Your task to perform on an android device: open app "Chime – Mobile Banking" (install if not already installed), go to login, and select forgot password Image 0: 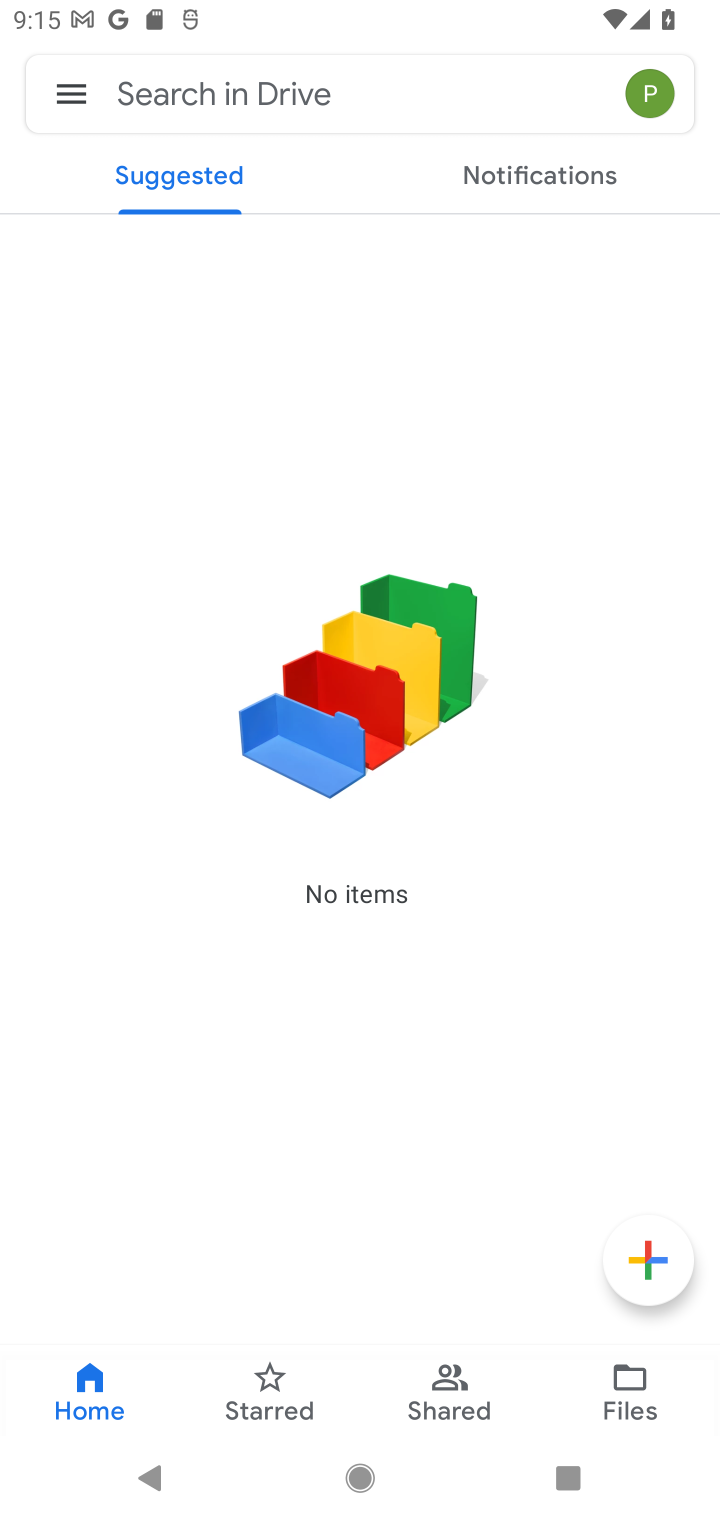
Step 0: press home button
Your task to perform on an android device: open app "Chime – Mobile Banking" (install if not already installed), go to login, and select forgot password Image 1: 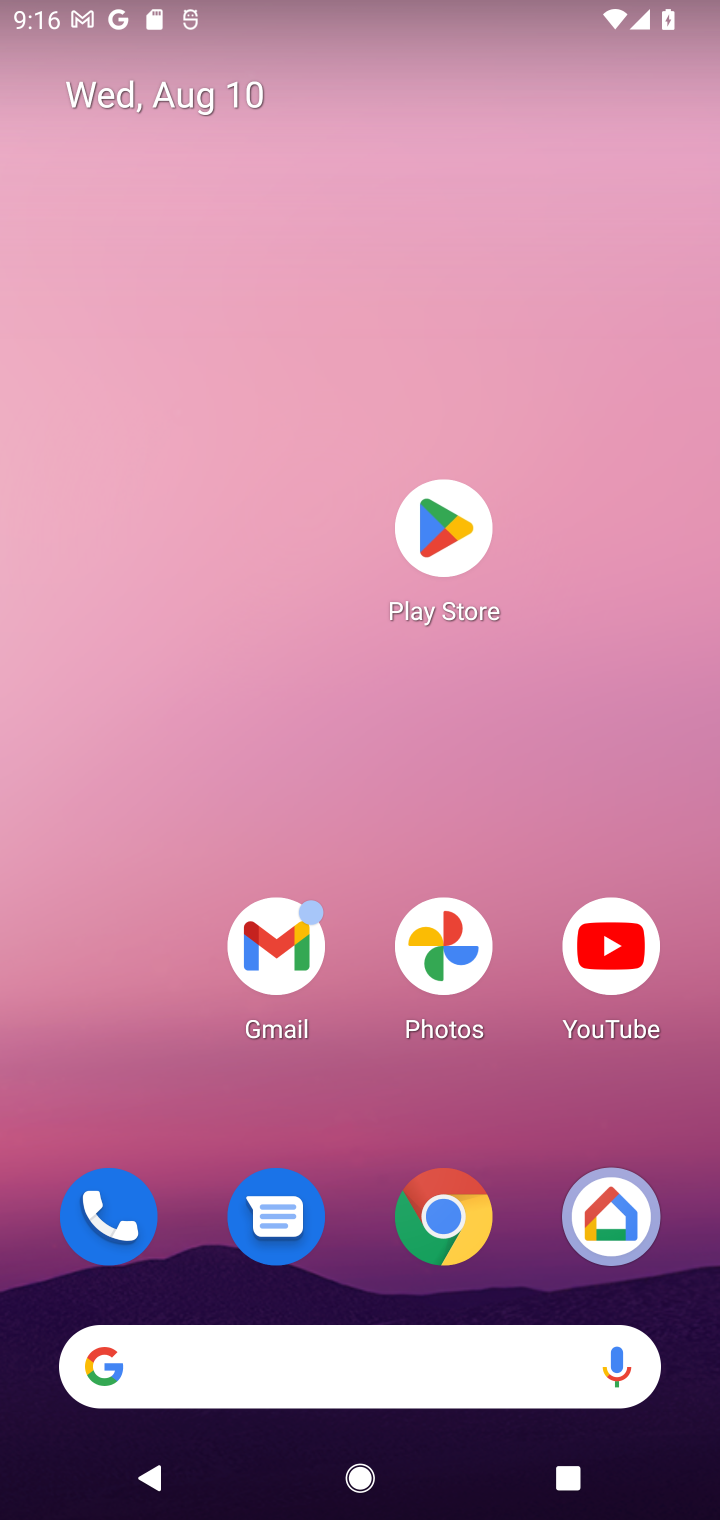
Step 1: click (447, 534)
Your task to perform on an android device: open app "Chime – Mobile Banking" (install if not already installed), go to login, and select forgot password Image 2: 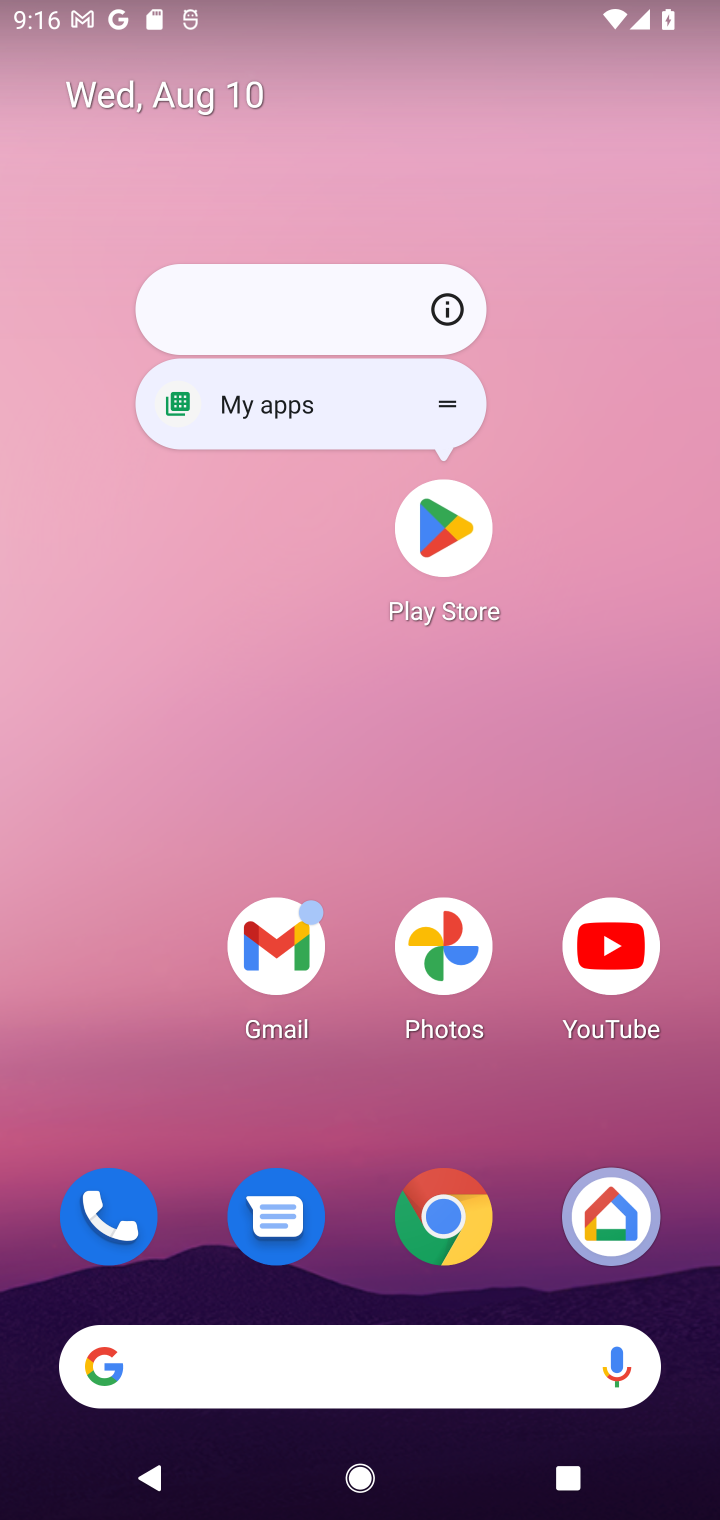
Step 2: click (447, 536)
Your task to perform on an android device: open app "Chime – Mobile Banking" (install if not already installed), go to login, and select forgot password Image 3: 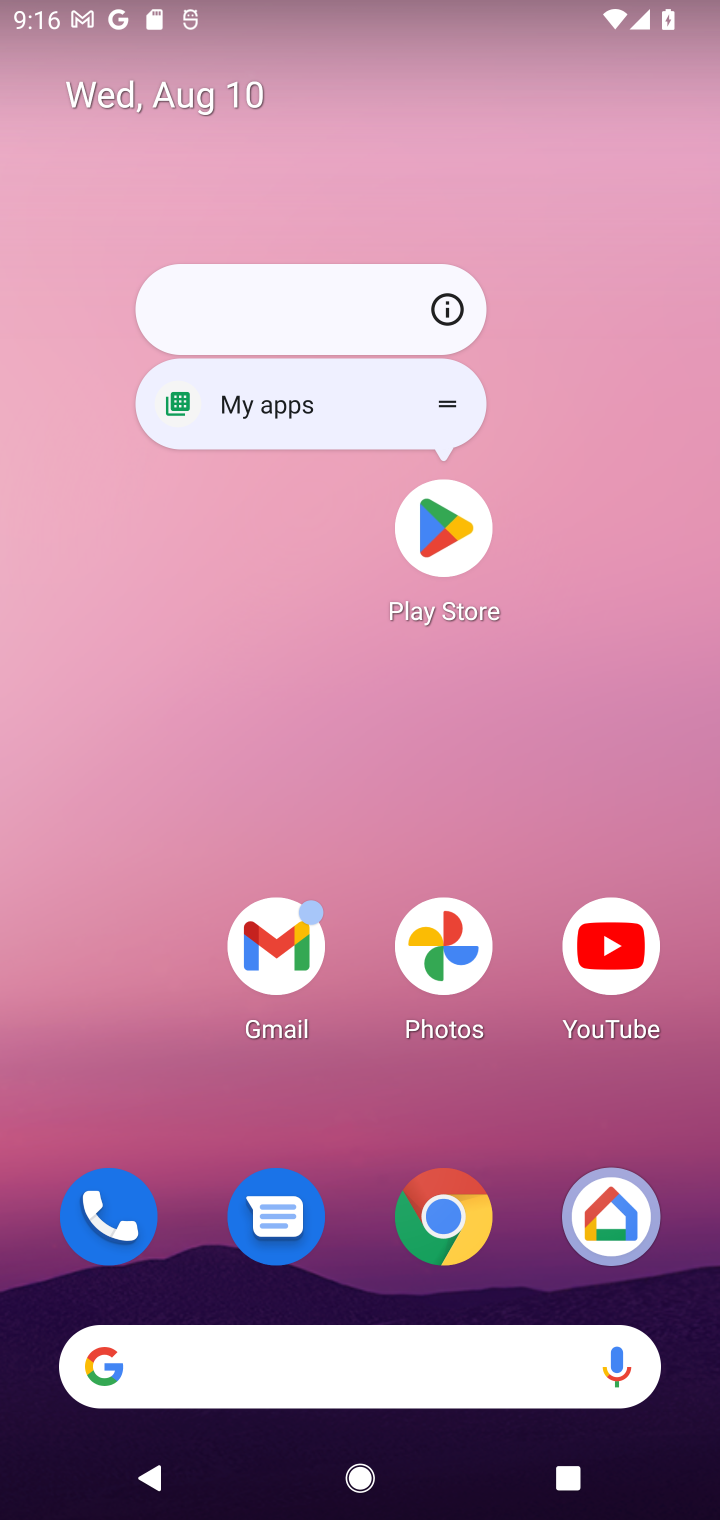
Step 3: click (447, 539)
Your task to perform on an android device: open app "Chime – Mobile Banking" (install if not already installed), go to login, and select forgot password Image 4: 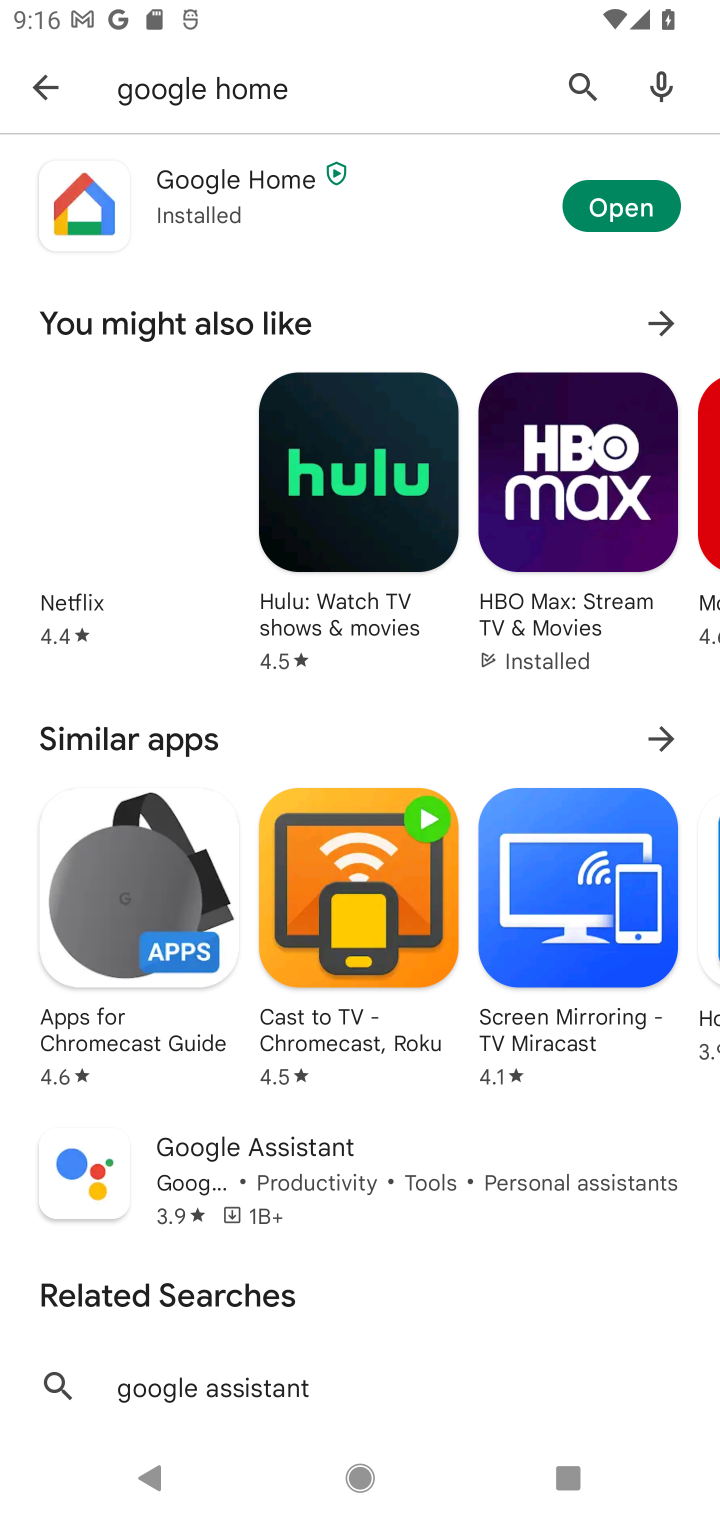
Step 4: click (575, 91)
Your task to perform on an android device: open app "Chime – Mobile Banking" (install if not already installed), go to login, and select forgot password Image 5: 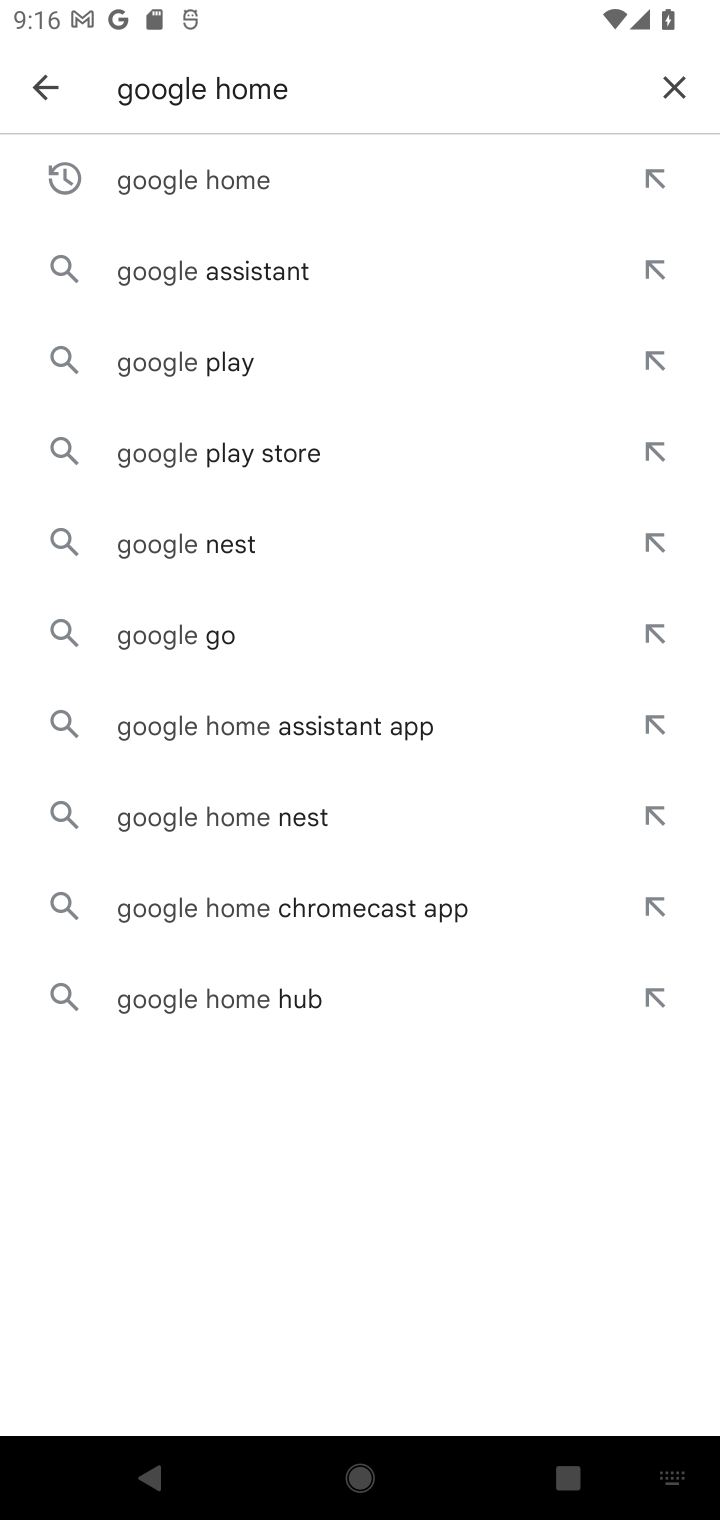
Step 5: click (672, 77)
Your task to perform on an android device: open app "Chime – Mobile Banking" (install if not already installed), go to login, and select forgot password Image 6: 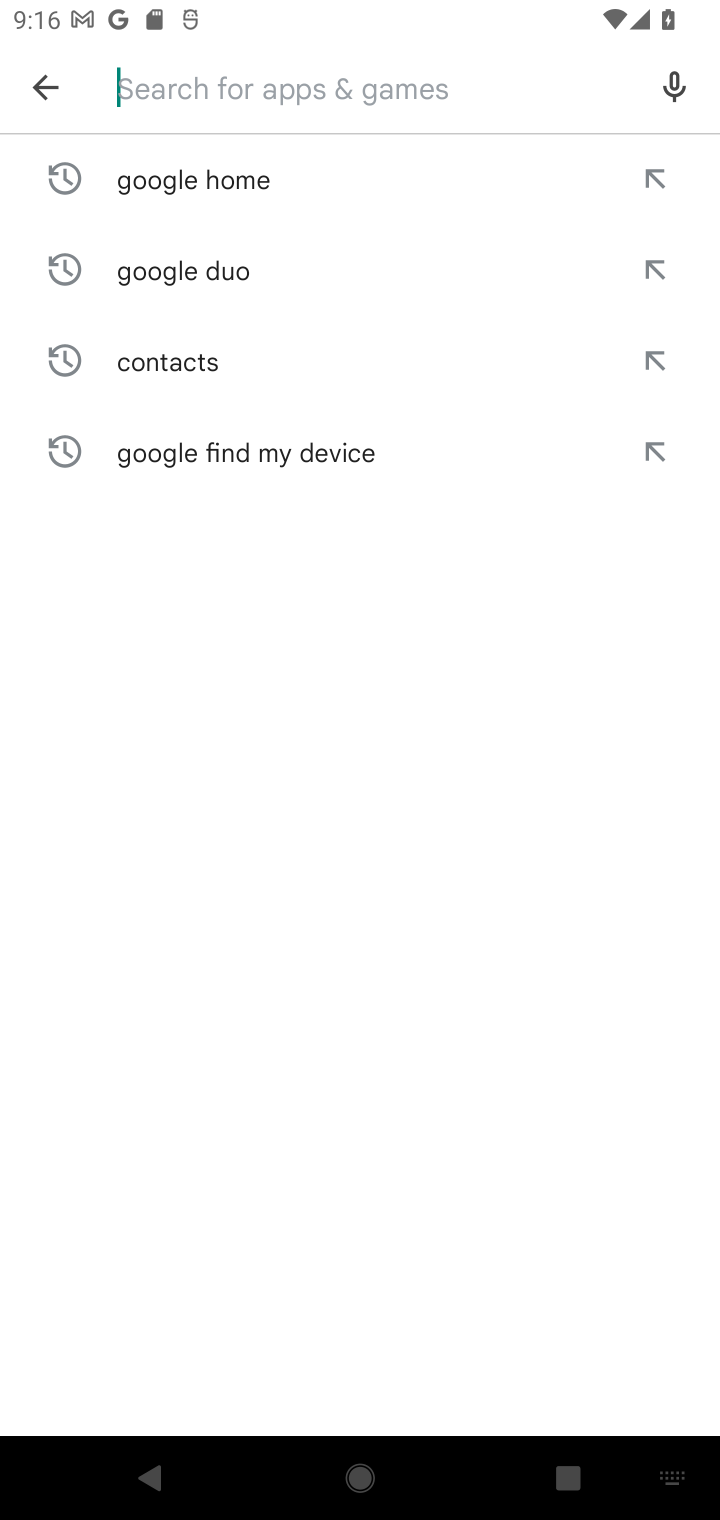
Step 6: type "Chime – Mobile Banking"
Your task to perform on an android device: open app "Chime – Mobile Banking" (install if not already installed), go to login, and select forgot password Image 7: 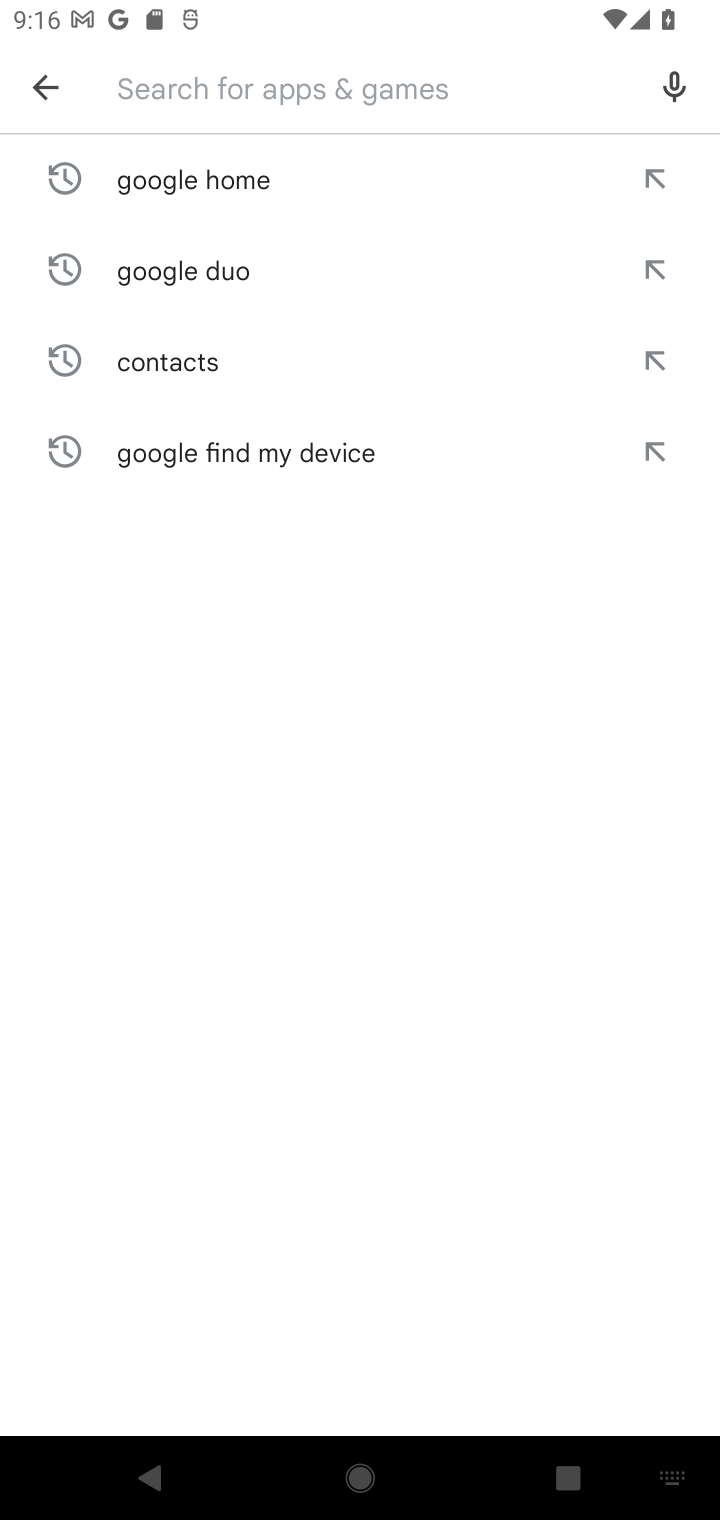
Step 7: type "Chime Mobile Banking"
Your task to perform on an android device: open app "Chime – Mobile Banking" (install if not already installed), go to login, and select forgot password Image 8: 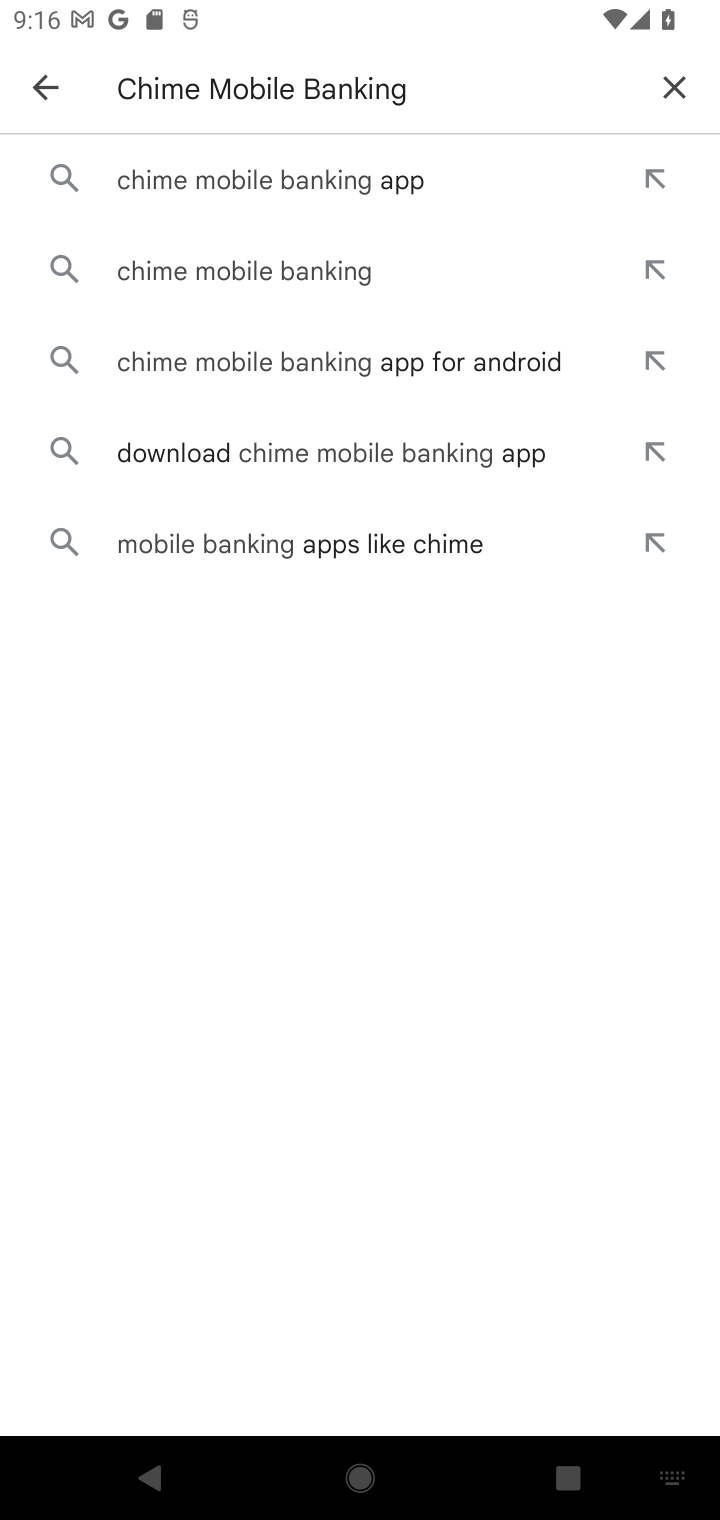
Step 8: click (360, 177)
Your task to perform on an android device: open app "Chime – Mobile Banking" (install if not already installed), go to login, and select forgot password Image 9: 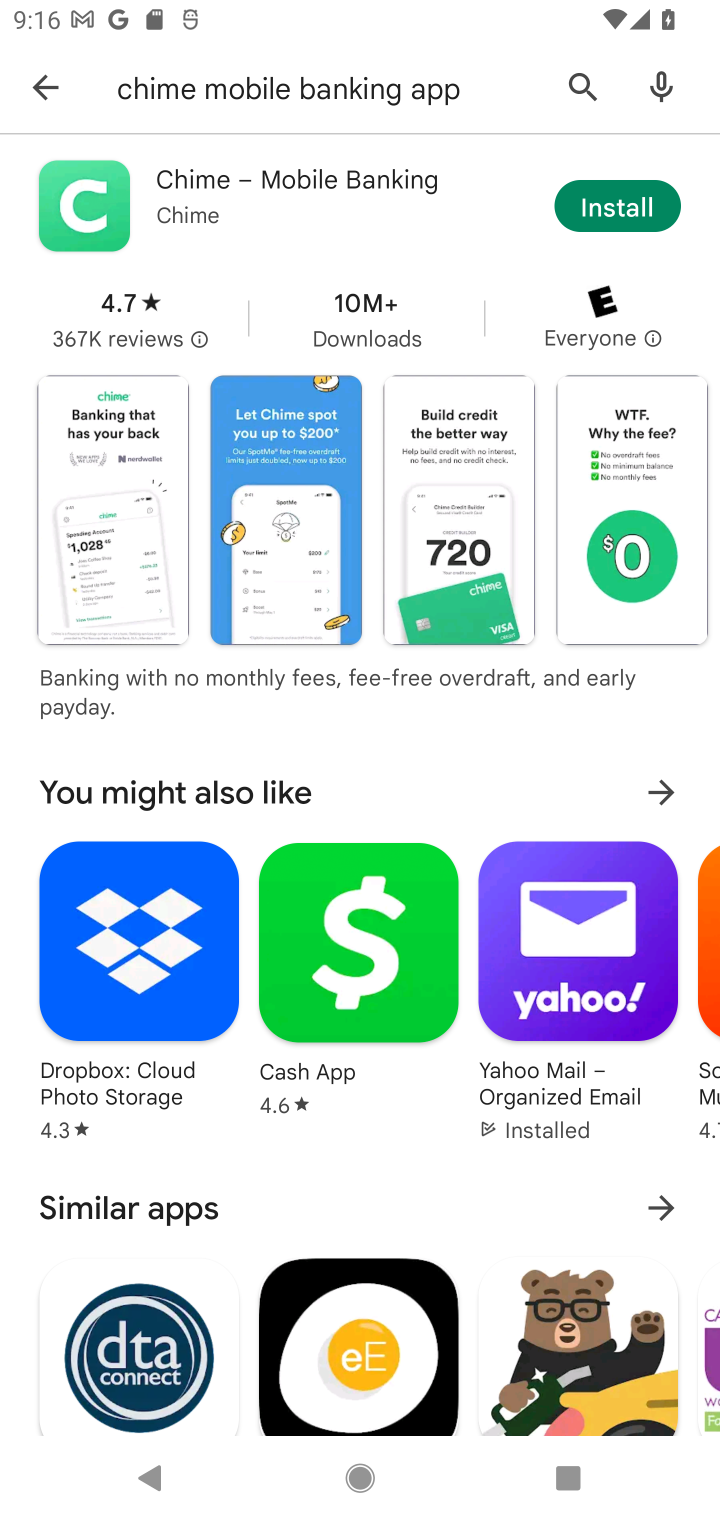
Step 9: click (603, 218)
Your task to perform on an android device: open app "Chime – Mobile Banking" (install if not already installed), go to login, and select forgot password Image 10: 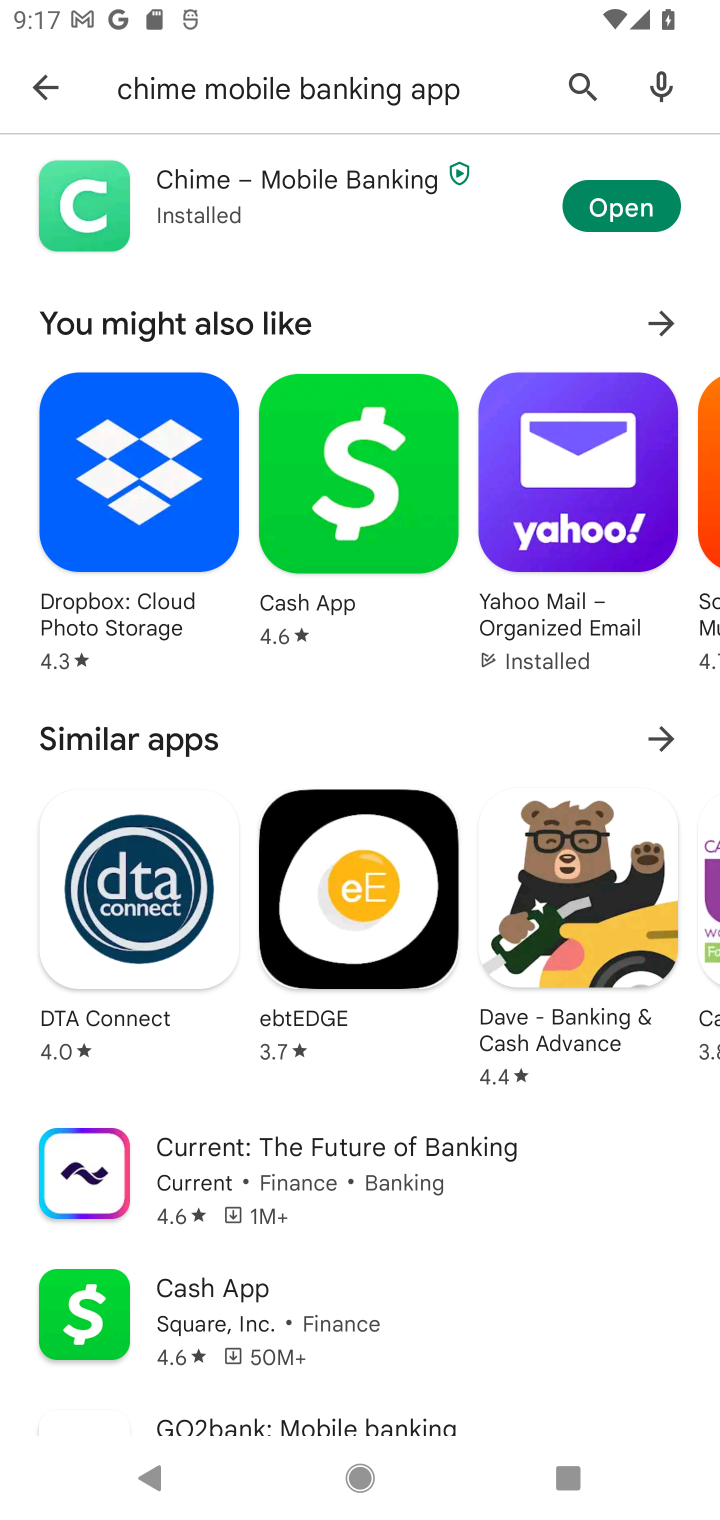
Step 10: click (631, 198)
Your task to perform on an android device: open app "Chime – Mobile Banking" (install if not already installed), go to login, and select forgot password Image 11: 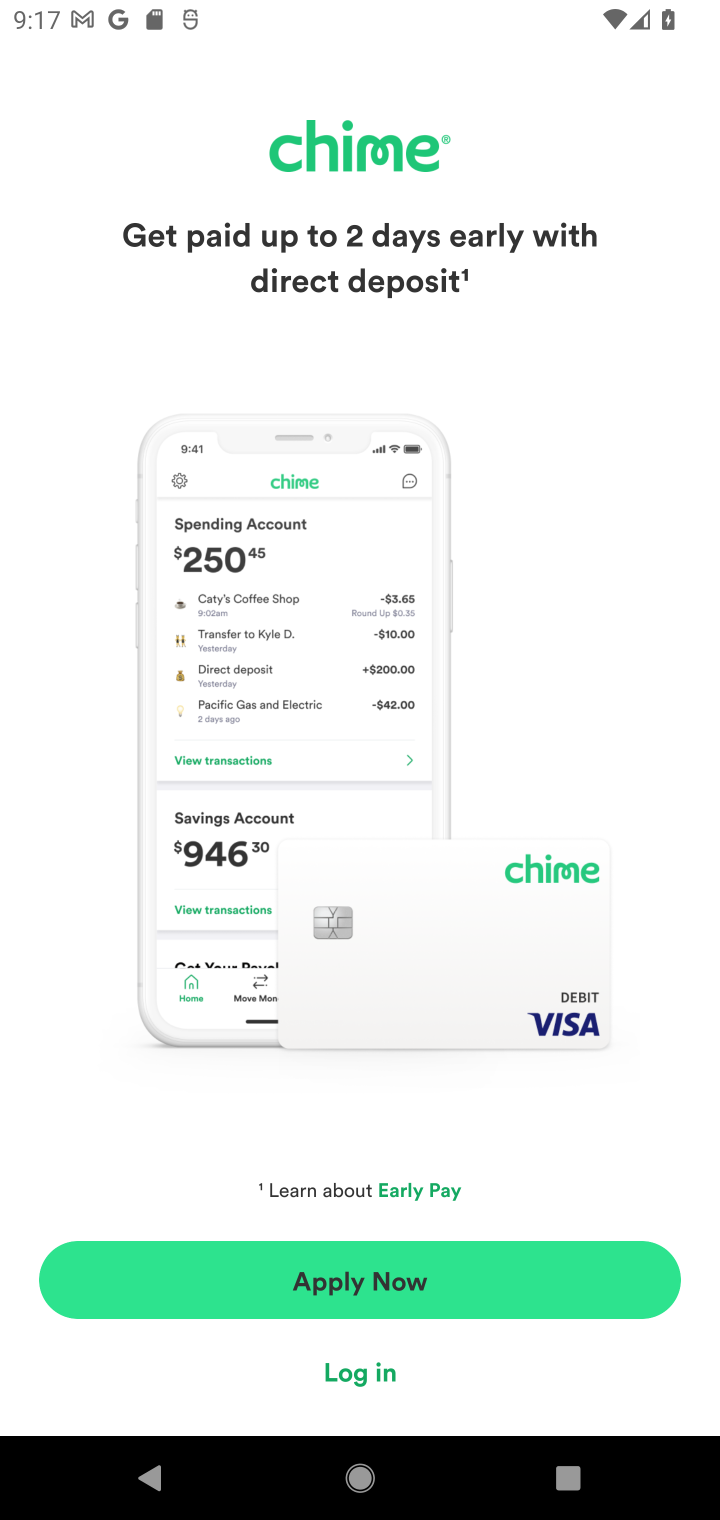
Step 11: click (381, 1376)
Your task to perform on an android device: open app "Chime – Mobile Banking" (install if not already installed), go to login, and select forgot password Image 12: 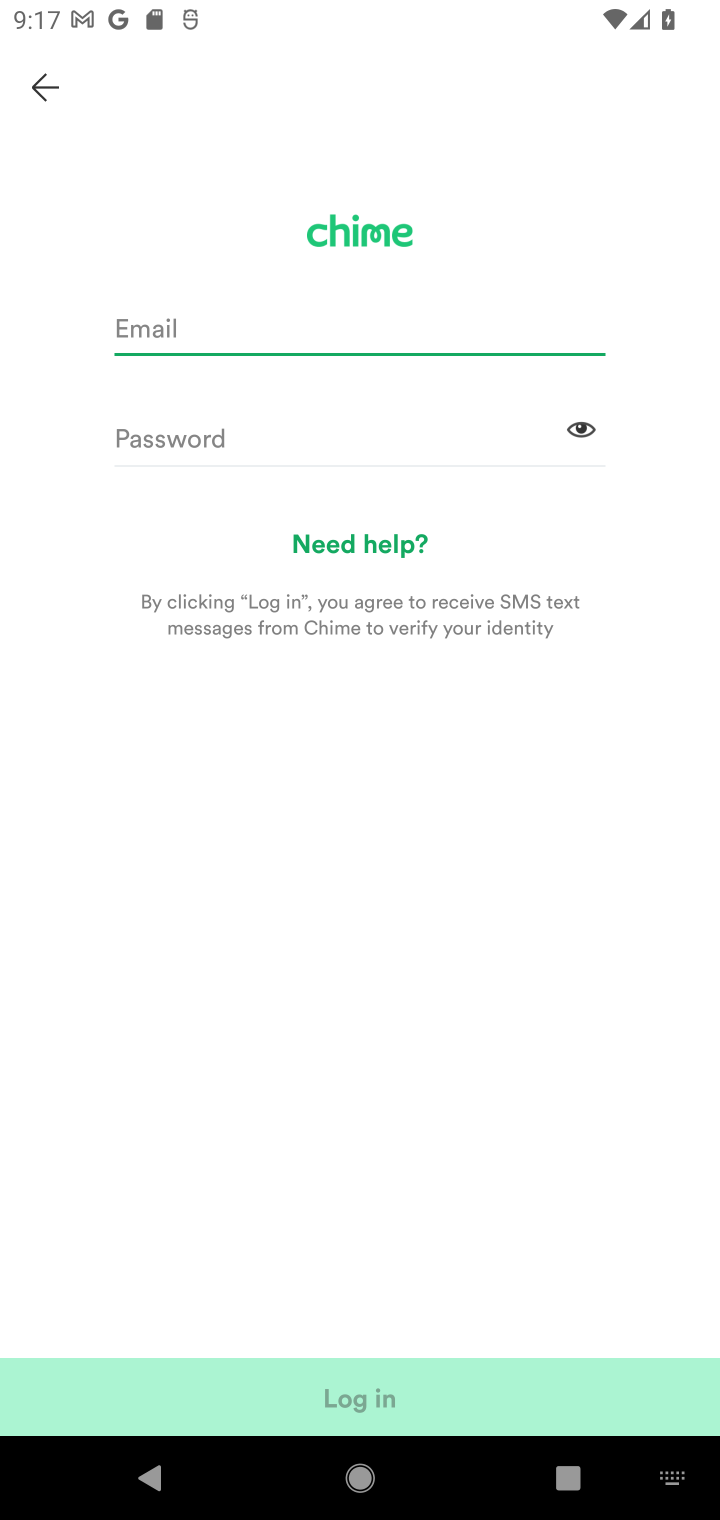
Step 12: click (357, 544)
Your task to perform on an android device: open app "Chime – Mobile Banking" (install if not already installed), go to login, and select forgot password Image 13: 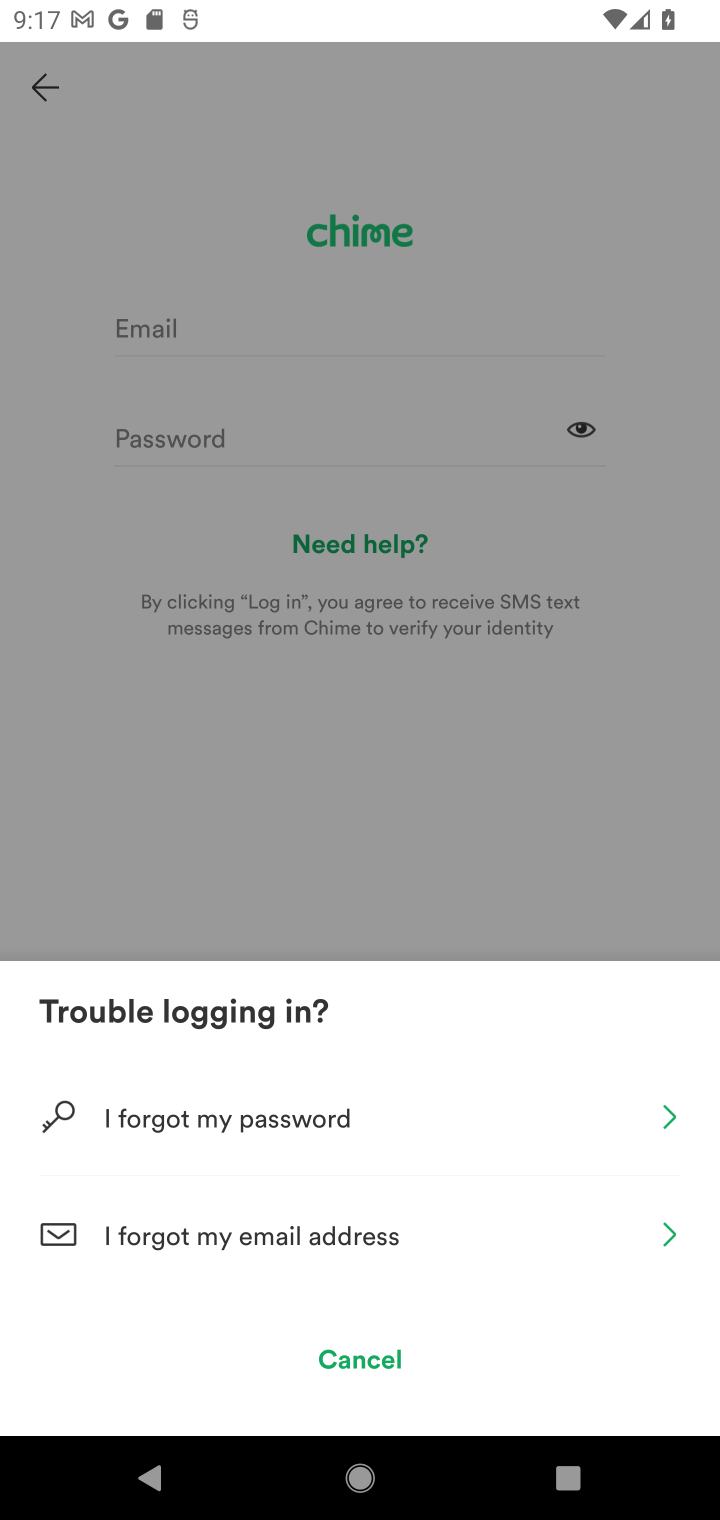
Step 13: click (329, 1130)
Your task to perform on an android device: open app "Chime – Mobile Banking" (install if not already installed), go to login, and select forgot password Image 14: 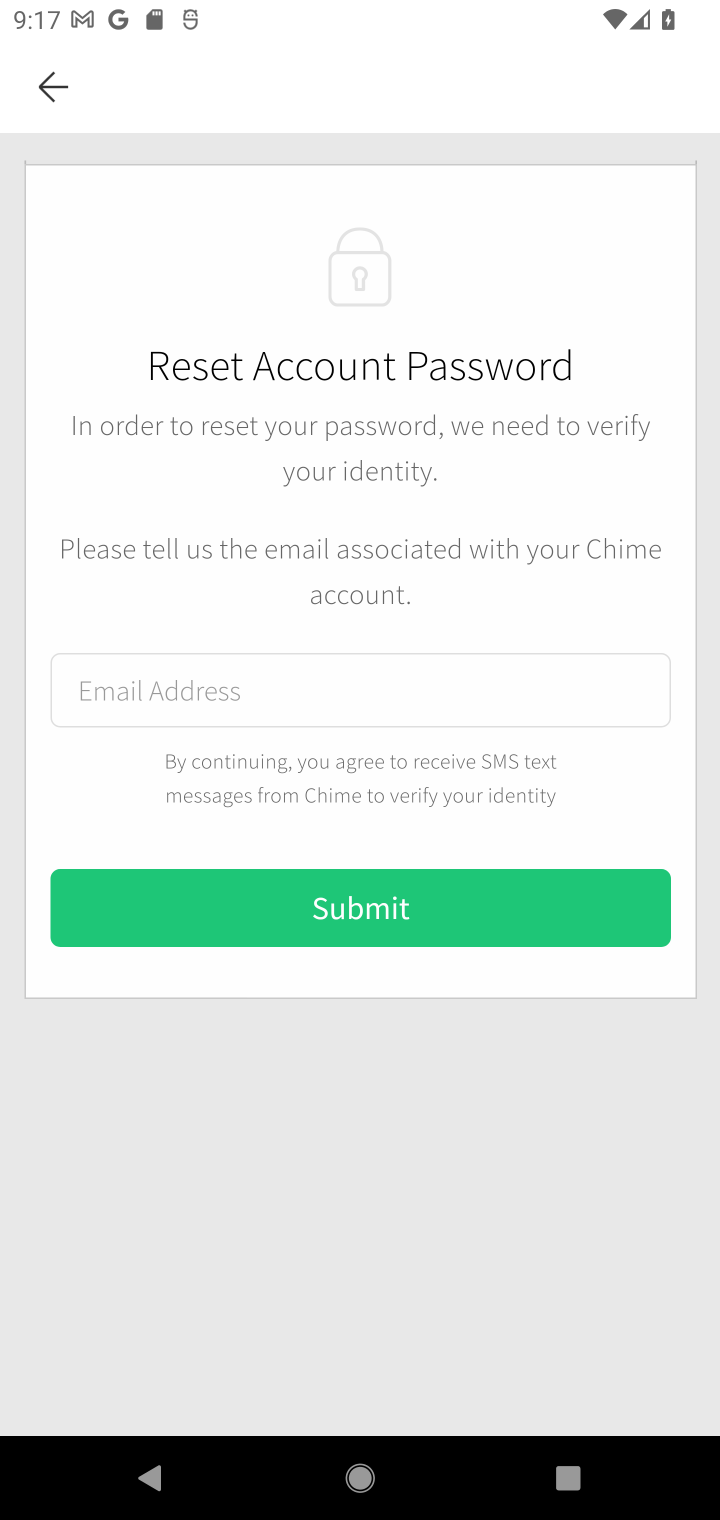
Step 14: task complete